Your task to perform on an android device: change the clock display to digital Image 0: 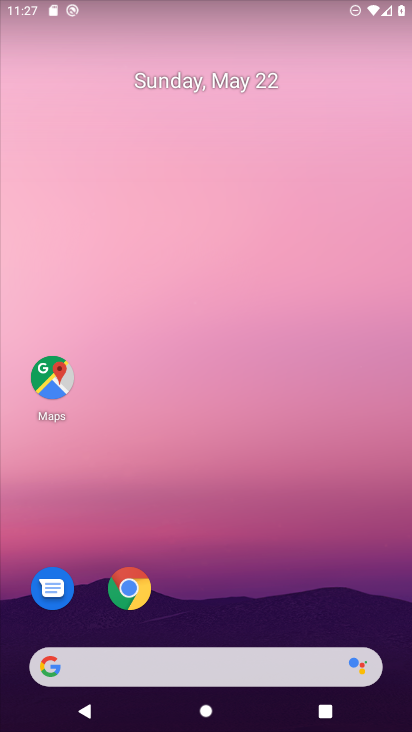
Step 0: drag from (257, 644) to (259, 198)
Your task to perform on an android device: change the clock display to digital Image 1: 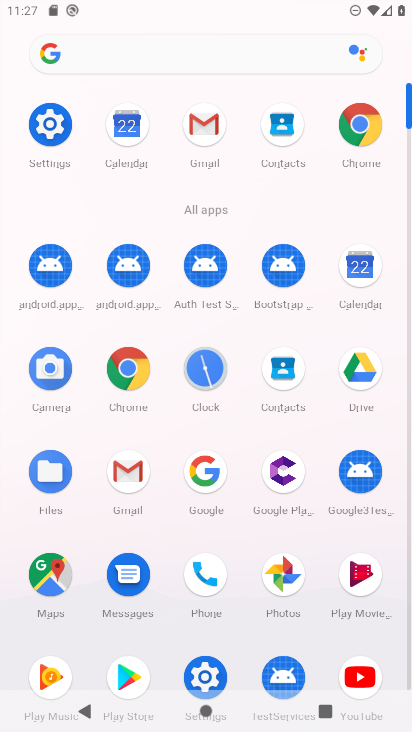
Step 1: click (184, 502)
Your task to perform on an android device: change the clock display to digital Image 2: 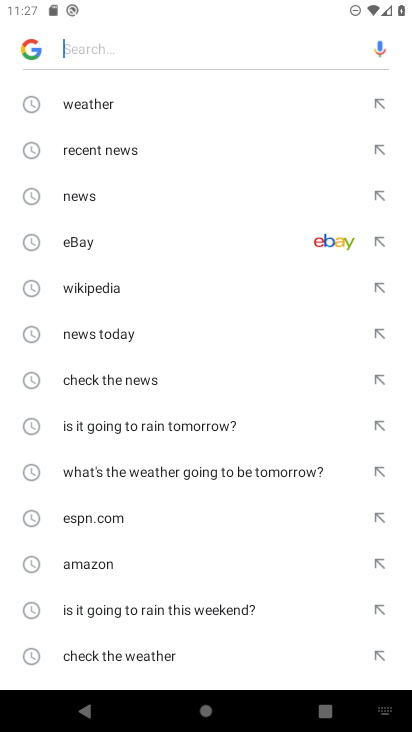
Step 2: press home button
Your task to perform on an android device: change the clock display to digital Image 3: 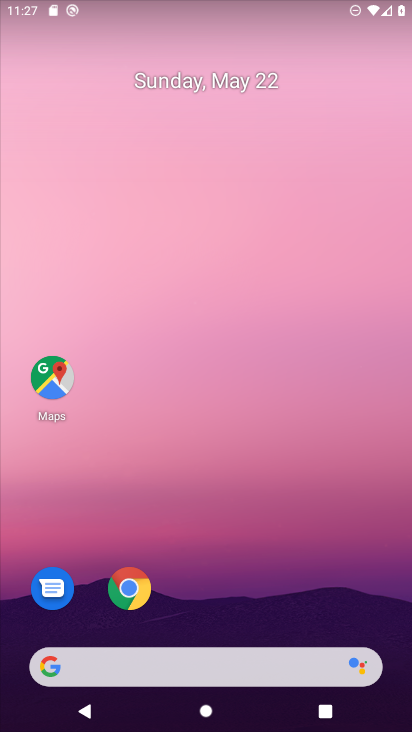
Step 3: drag from (148, 647) to (179, 157)
Your task to perform on an android device: change the clock display to digital Image 4: 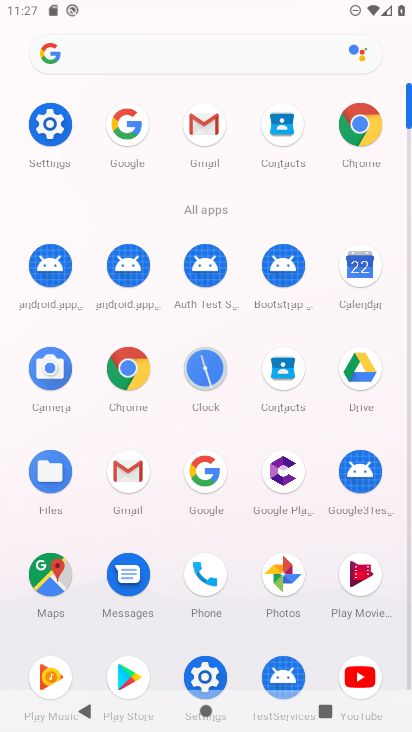
Step 4: click (200, 368)
Your task to perform on an android device: change the clock display to digital Image 5: 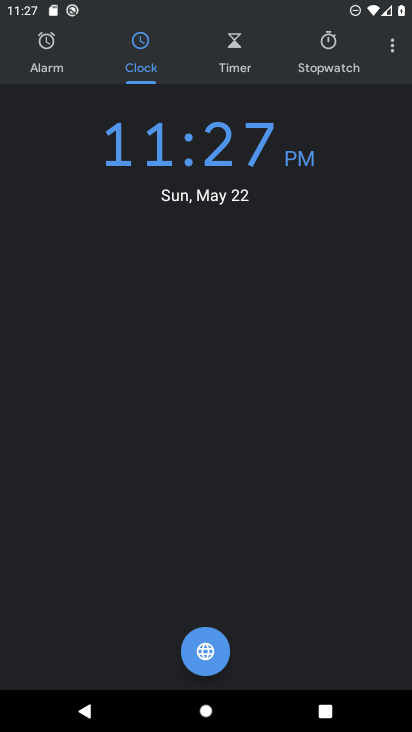
Step 5: click (395, 43)
Your task to perform on an android device: change the clock display to digital Image 6: 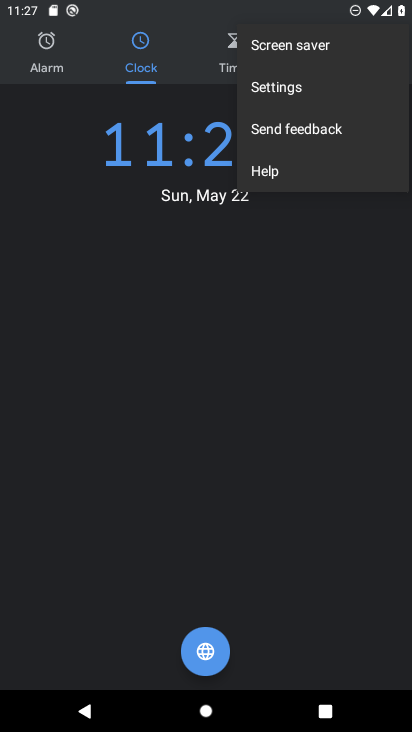
Step 6: click (275, 94)
Your task to perform on an android device: change the clock display to digital Image 7: 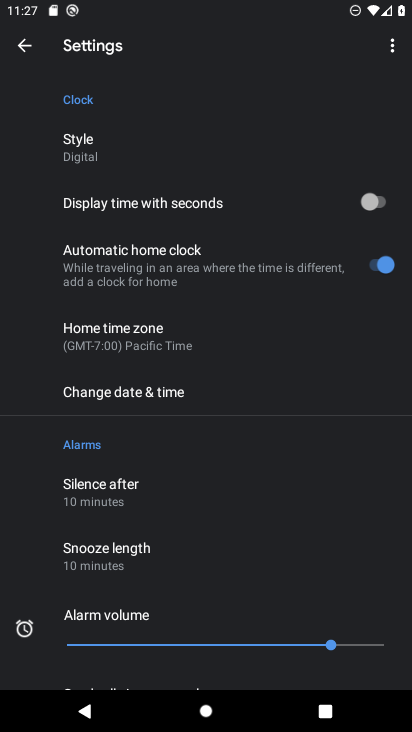
Step 7: click (90, 152)
Your task to perform on an android device: change the clock display to digital Image 8: 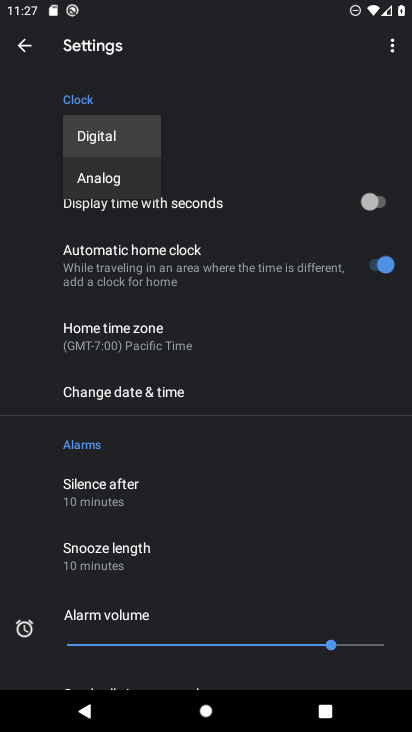
Step 8: click (121, 135)
Your task to perform on an android device: change the clock display to digital Image 9: 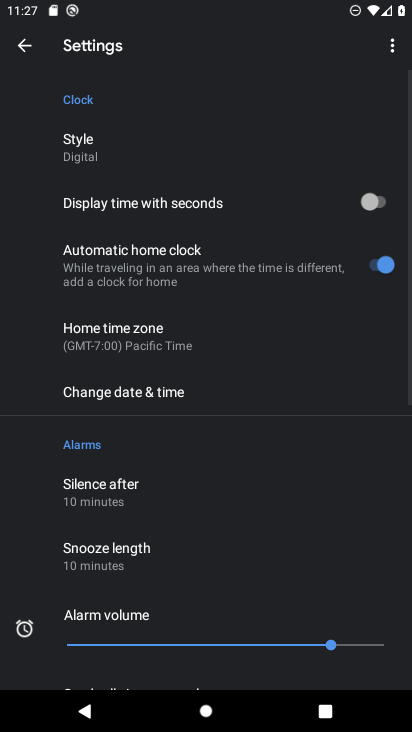
Step 9: task complete